Your task to perform on an android device: check android version Image 0: 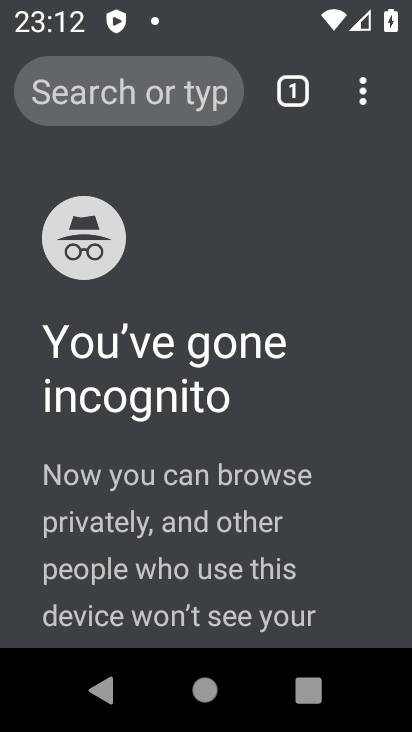
Step 0: press home button
Your task to perform on an android device: check android version Image 1: 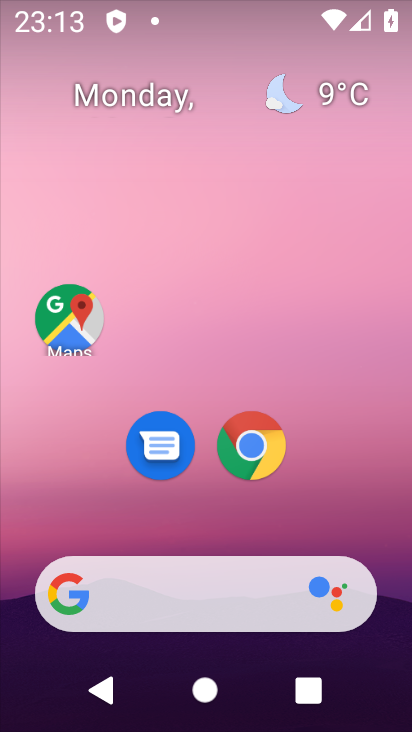
Step 1: drag from (359, 583) to (326, 33)
Your task to perform on an android device: check android version Image 2: 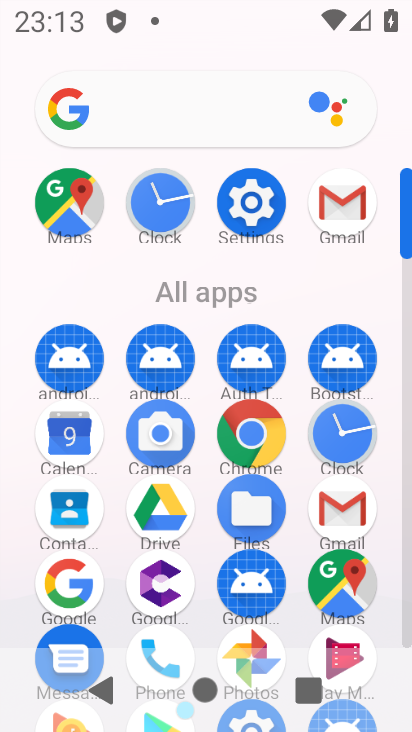
Step 2: click (245, 211)
Your task to perform on an android device: check android version Image 3: 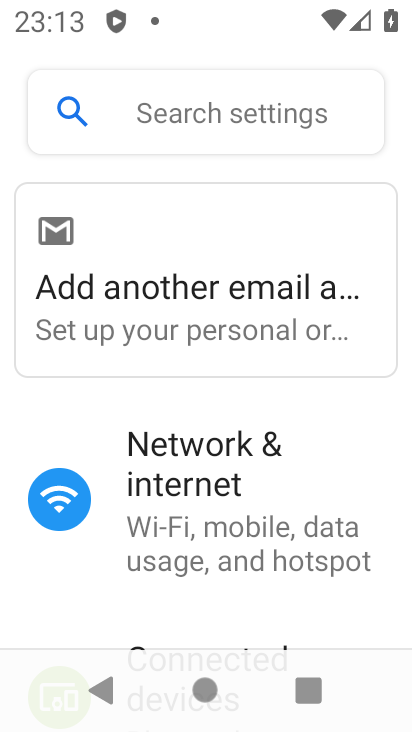
Step 3: drag from (316, 619) to (289, 72)
Your task to perform on an android device: check android version Image 4: 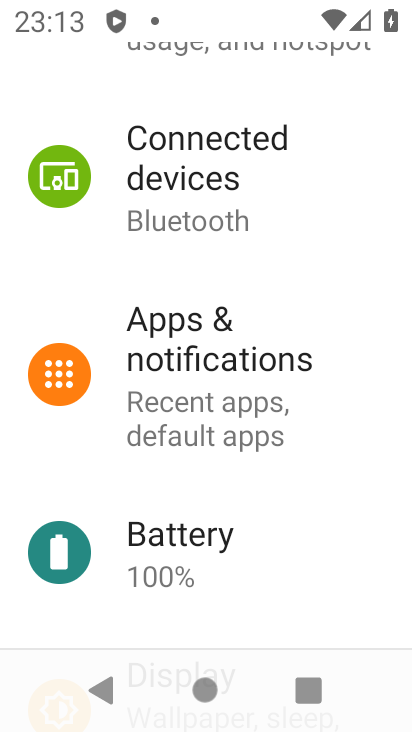
Step 4: drag from (328, 618) to (313, 174)
Your task to perform on an android device: check android version Image 5: 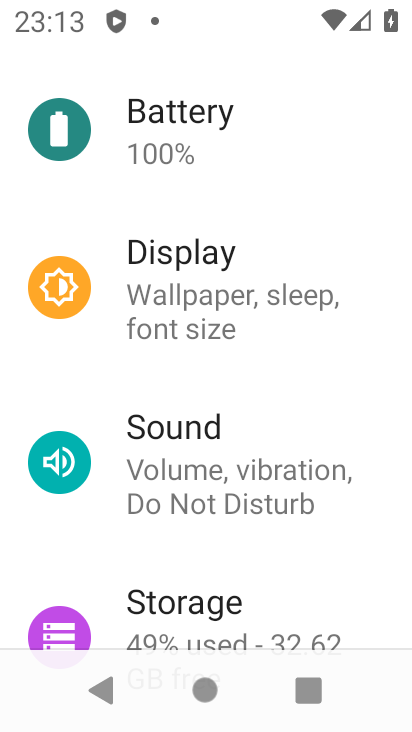
Step 5: drag from (270, 610) to (258, 105)
Your task to perform on an android device: check android version Image 6: 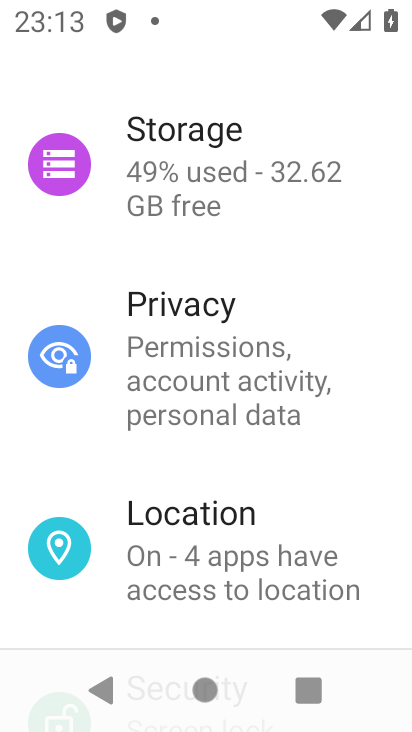
Step 6: drag from (266, 624) to (273, 183)
Your task to perform on an android device: check android version Image 7: 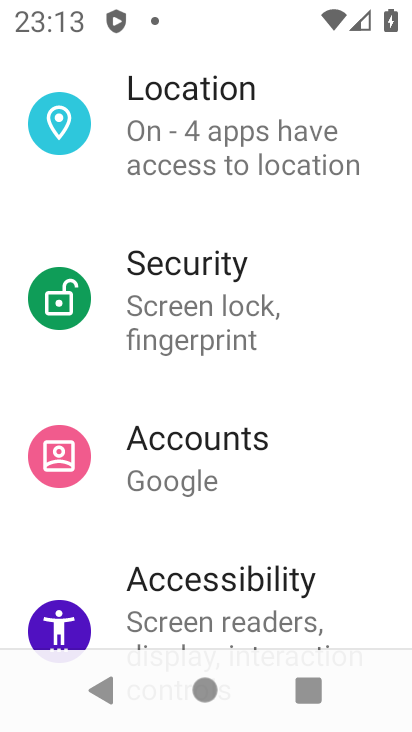
Step 7: drag from (289, 575) to (298, 125)
Your task to perform on an android device: check android version Image 8: 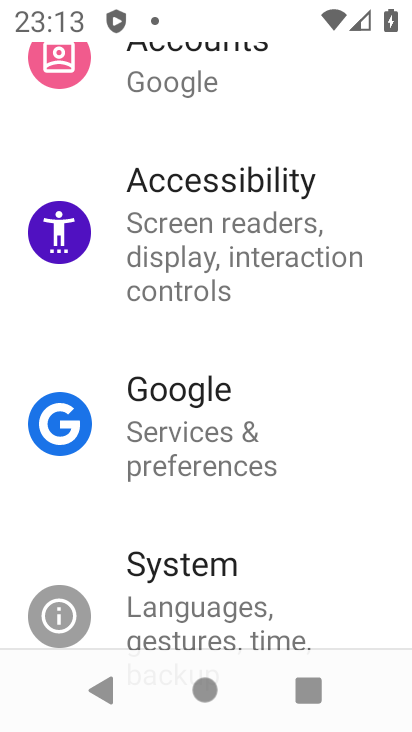
Step 8: drag from (279, 636) to (293, 275)
Your task to perform on an android device: check android version Image 9: 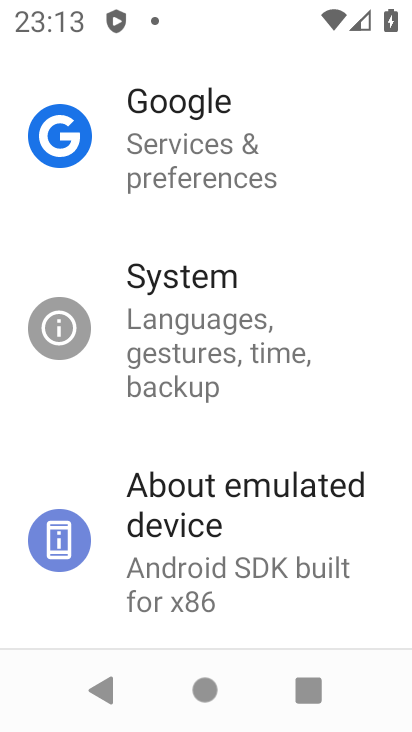
Step 9: click (297, 579)
Your task to perform on an android device: check android version Image 10: 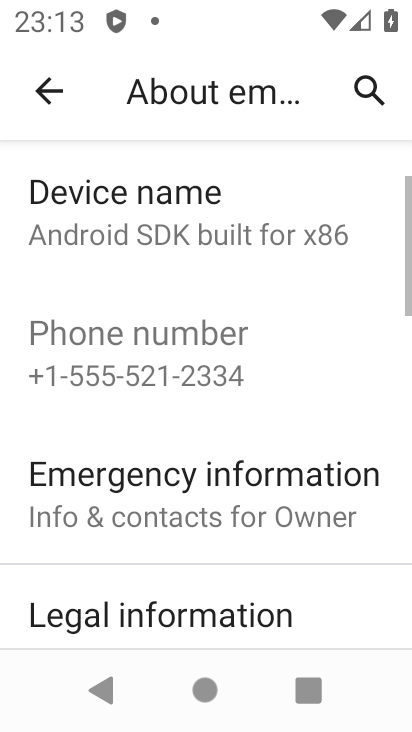
Step 10: drag from (289, 628) to (303, 201)
Your task to perform on an android device: check android version Image 11: 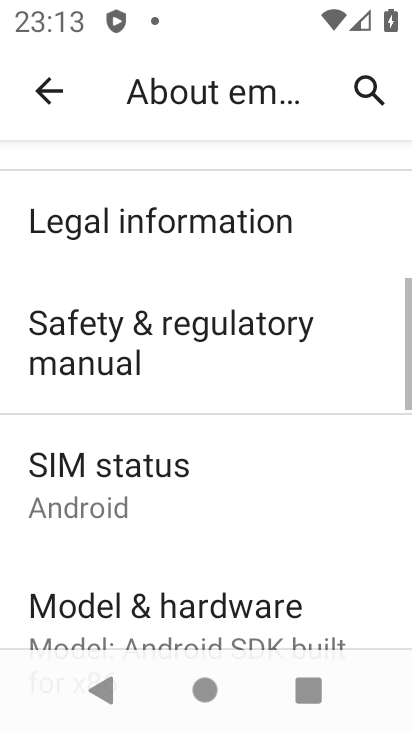
Step 11: drag from (278, 595) to (264, 133)
Your task to perform on an android device: check android version Image 12: 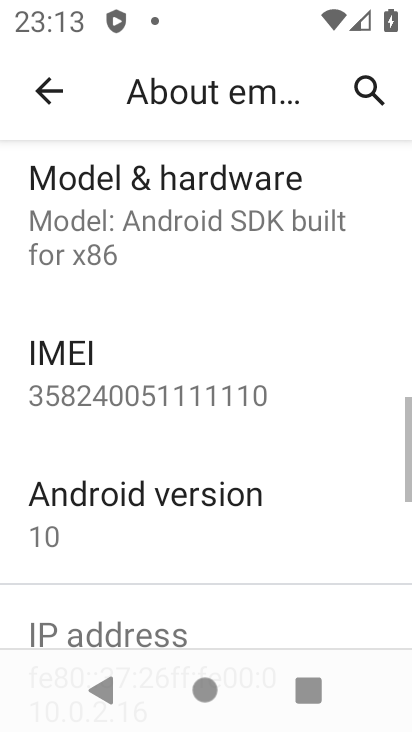
Step 12: click (263, 531)
Your task to perform on an android device: check android version Image 13: 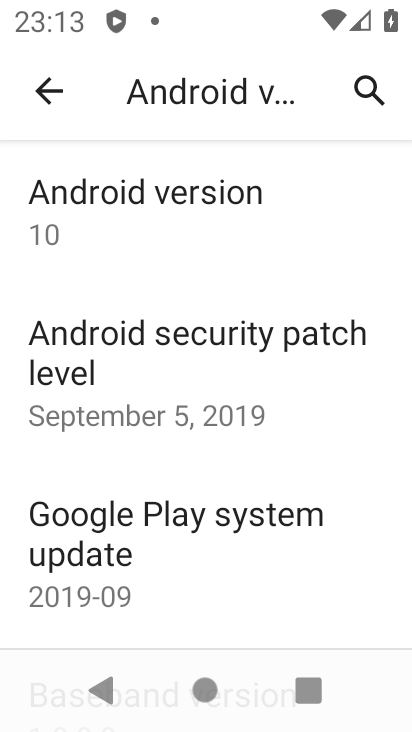
Step 13: task complete